Your task to perform on an android device: change text size in settings app Image 0: 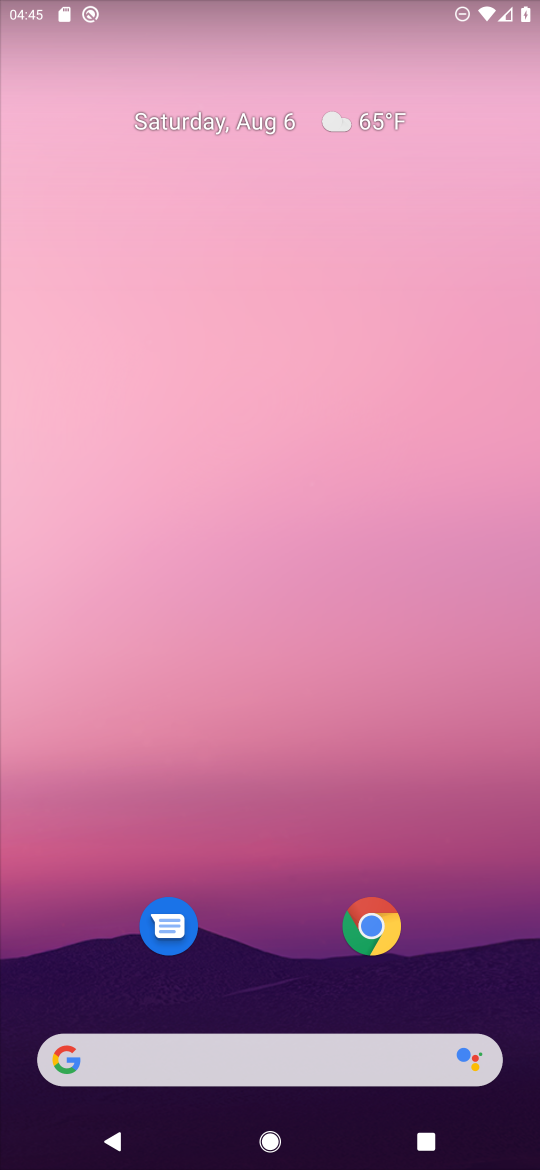
Step 0: drag from (269, 861) to (305, 176)
Your task to perform on an android device: change text size in settings app Image 1: 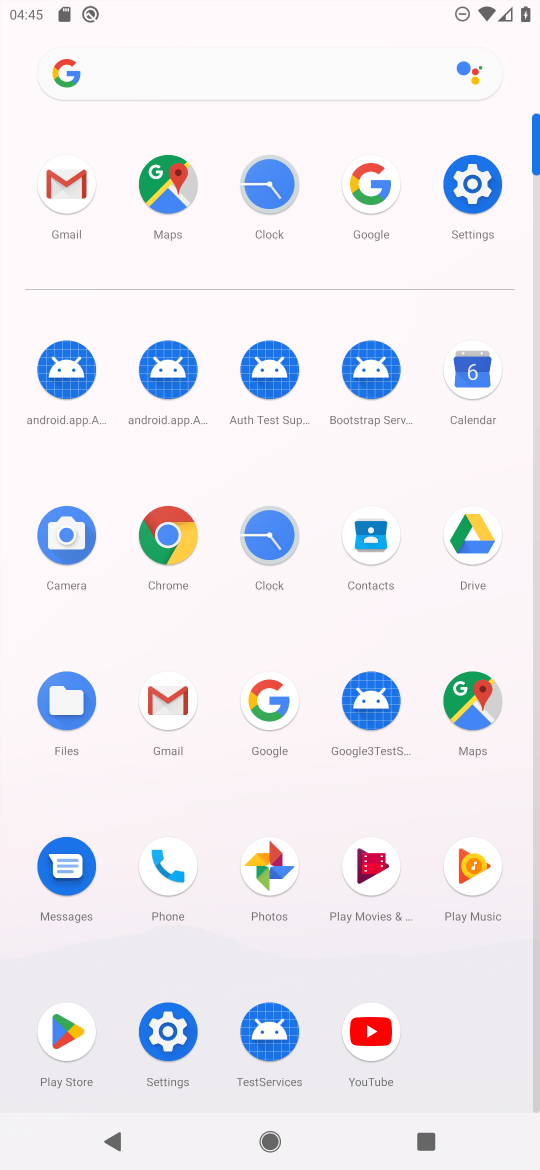
Step 1: click (480, 206)
Your task to perform on an android device: change text size in settings app Image 2: 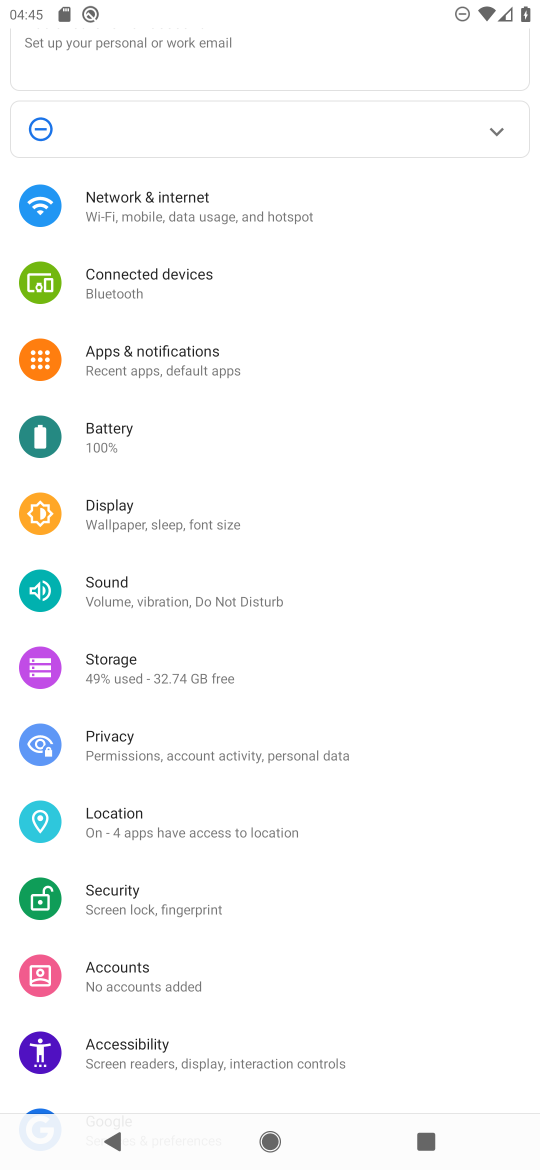
Step 2: click (174, 504)
Your task to perform on an android device: change text size in settings app Image 3: 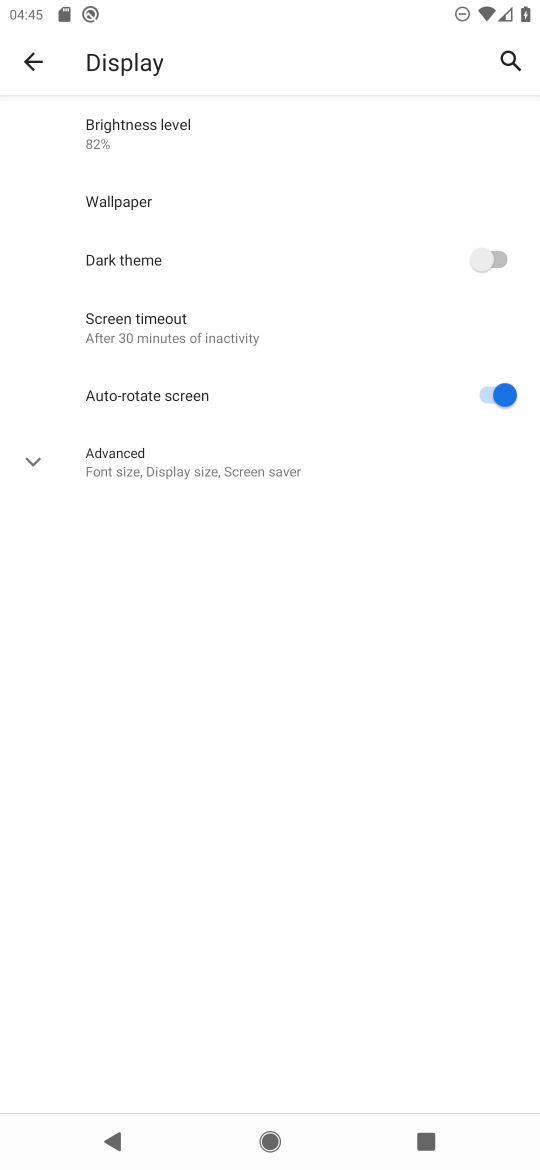
Step 3: click (130, 456)
Your task to perform on an android device: change text size in settings app Image 4: 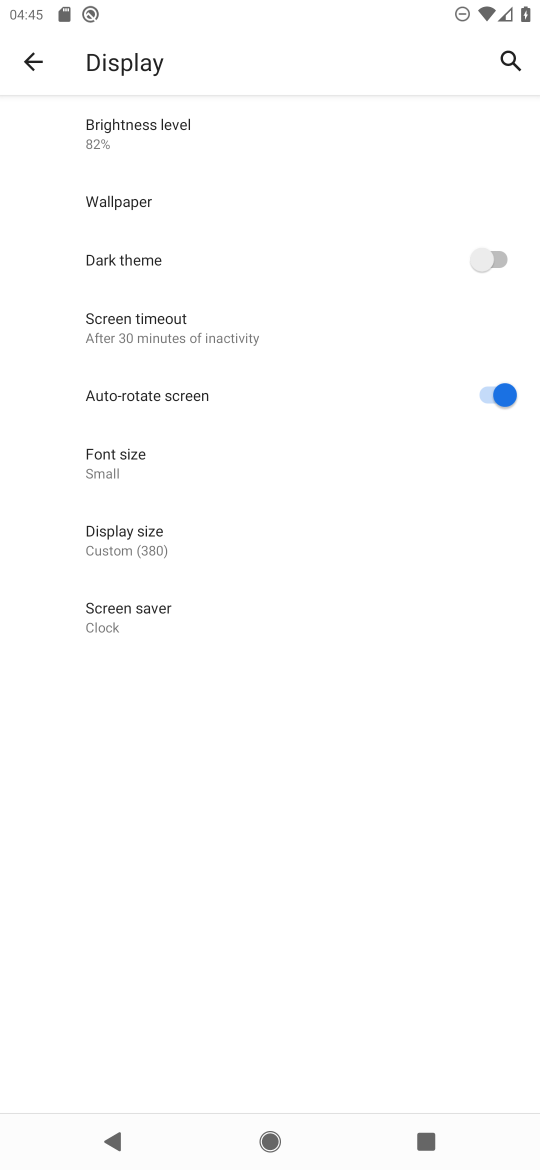
Step 4: click (149, 463)
Your task to perform on an android device: change text size in settings app Image 5: 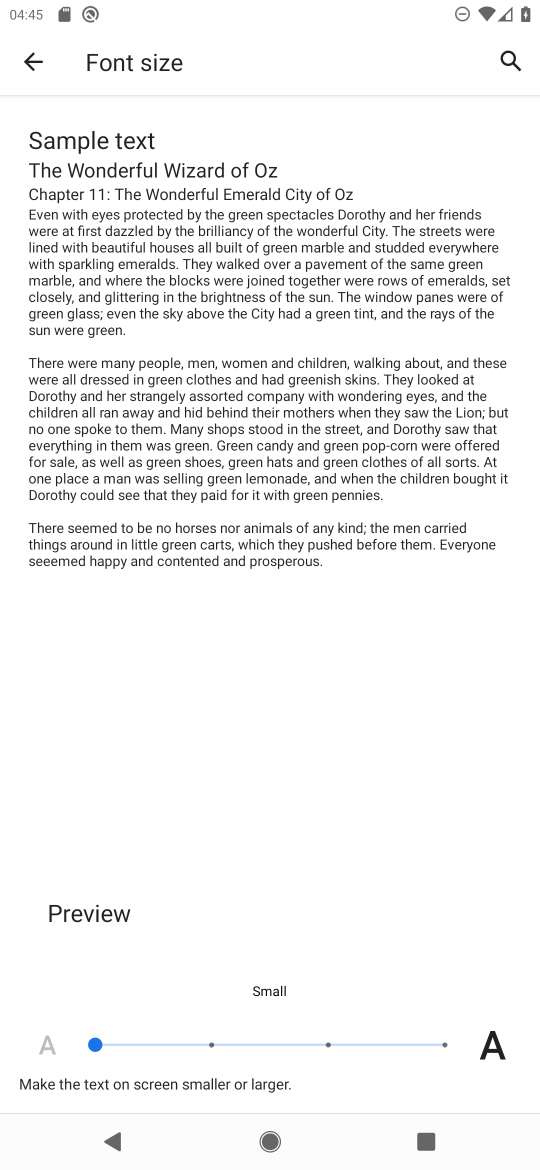
Step 5: click (445, 1037)
Your task to perform on an android device: change text size in settings app Image 6: 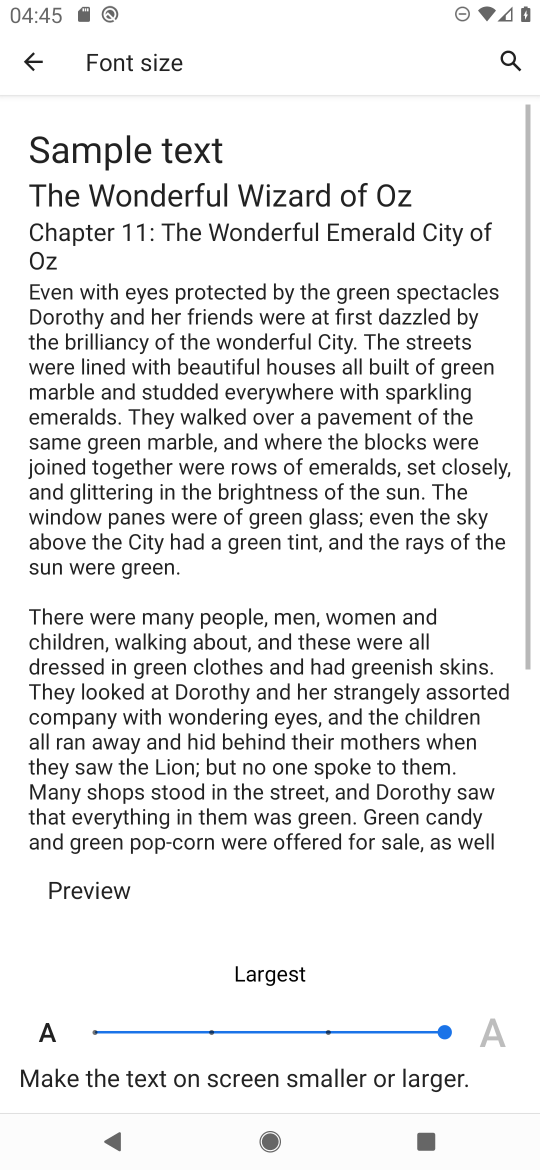
Step 6: task complete